Your task to perform on an android device: uninstall "Microsoft Excel" Image 0: 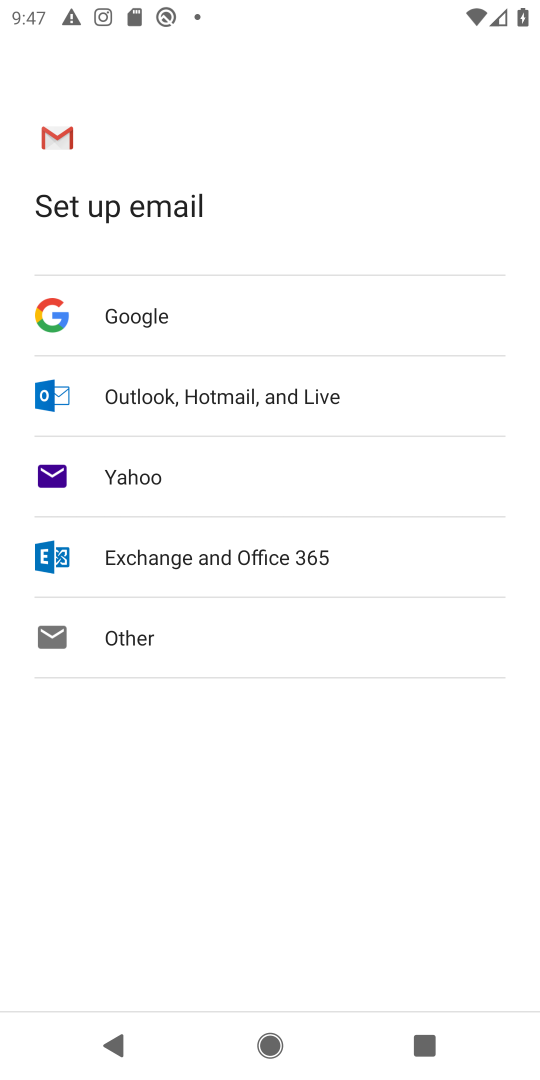
Step 0: press home button
Your task to perform on an android device: uninstall "Microsoft Excel" Image 1: 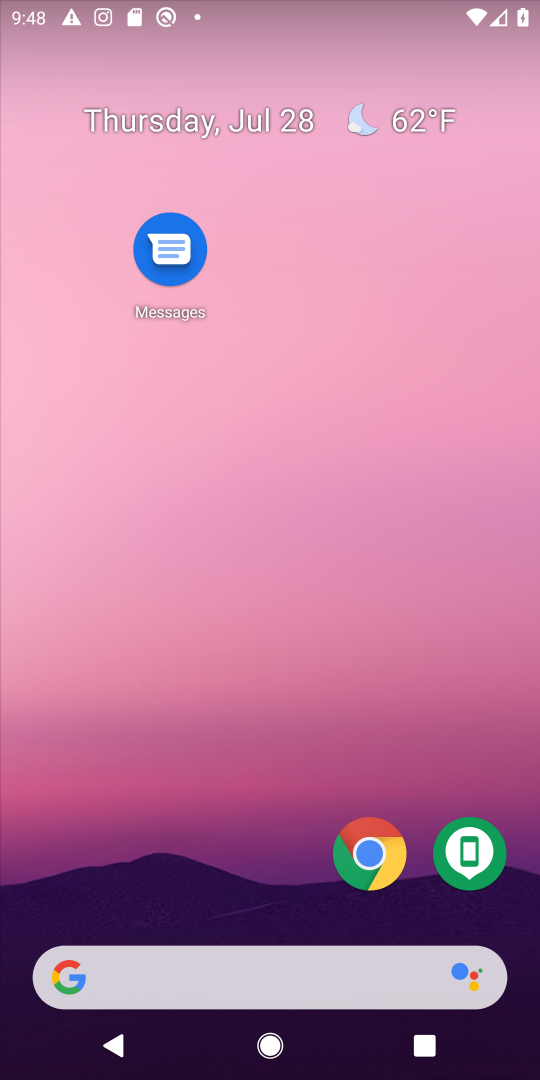
Step 1: press home button
Your task to perform on an android device: uninstall "Microsoft Excel" Image 2: 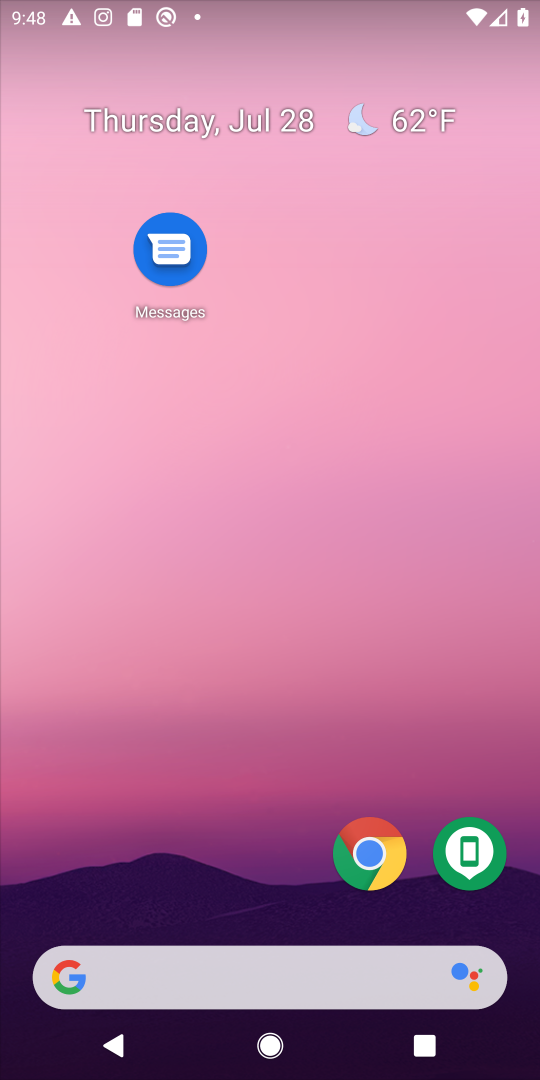
Step 2: click (226, 905)
Your task to perform on an android device: uninstall "Microsoft Excel" Image 3: 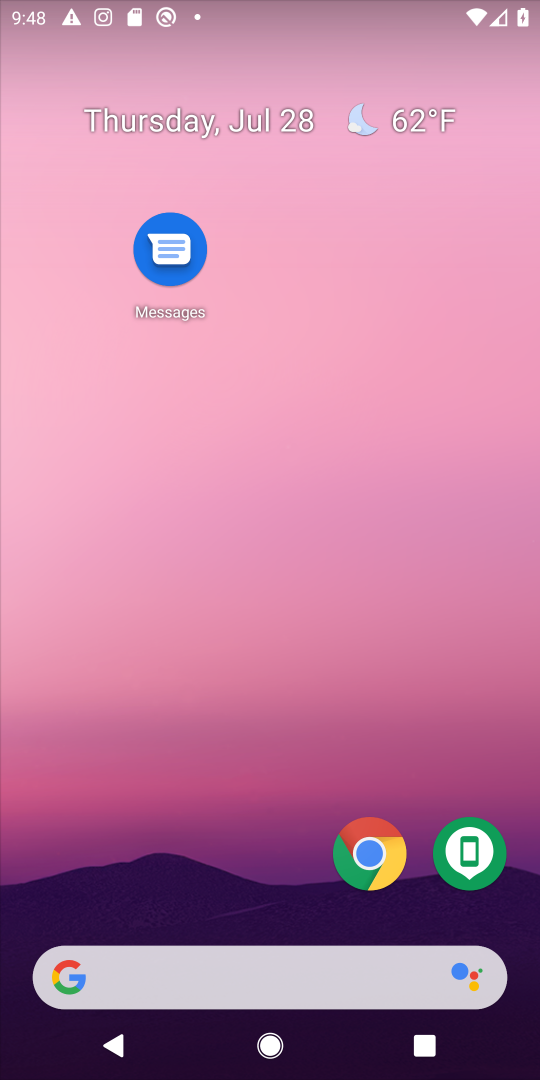
Step 3: drag from (222, 758) to (203, 12)
Your task to perform on an android device: uninstall "Microsoft Excel" Image 4: 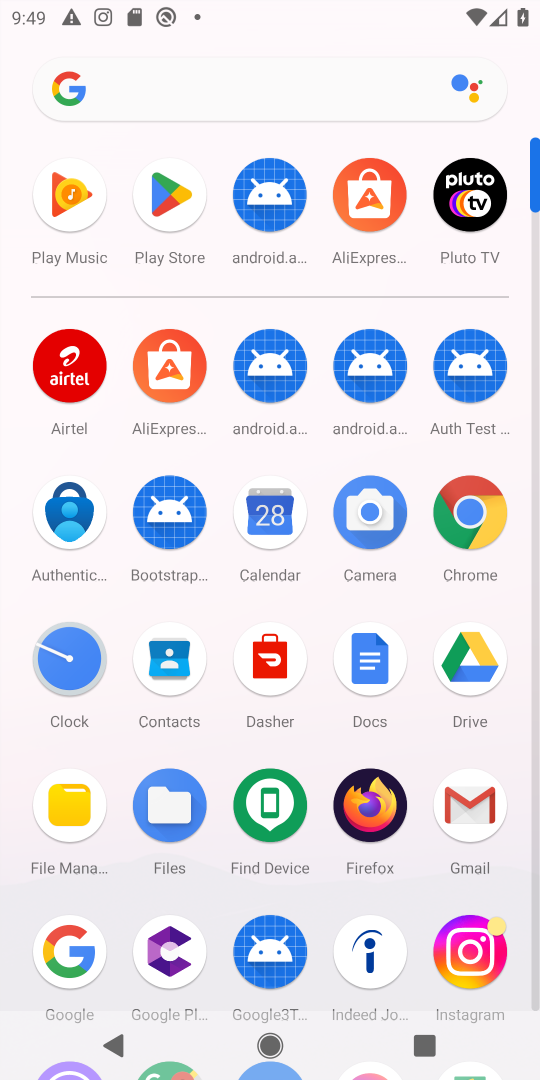
Step 4: click (172, 226)
Your task to perform on an android device: uninstall "Microsoft Excel" Image 5: 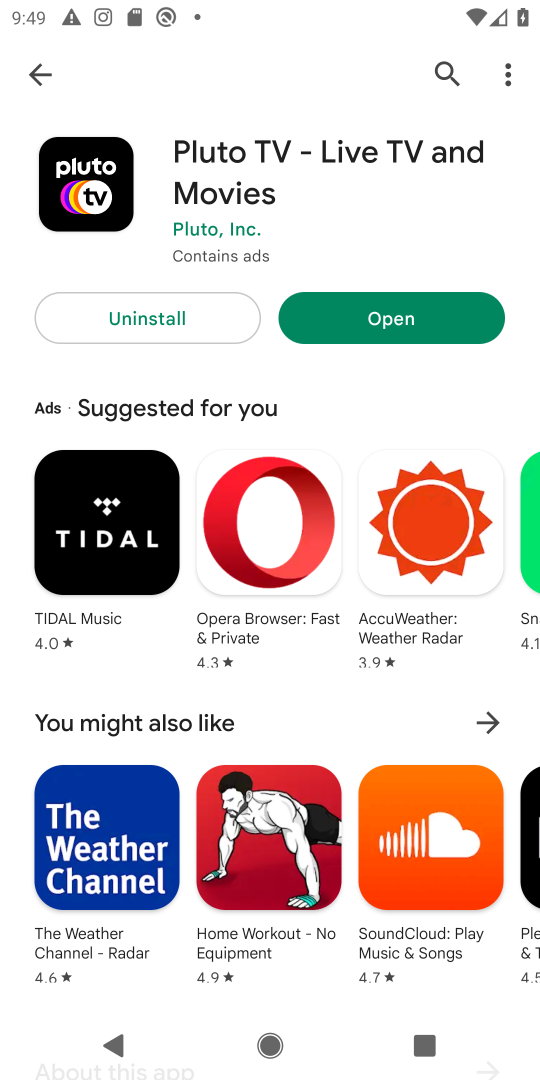
Step 5: click (48, 76)
Your task to perform on an android device: uninstall "Microsoft Excel" Image 6: 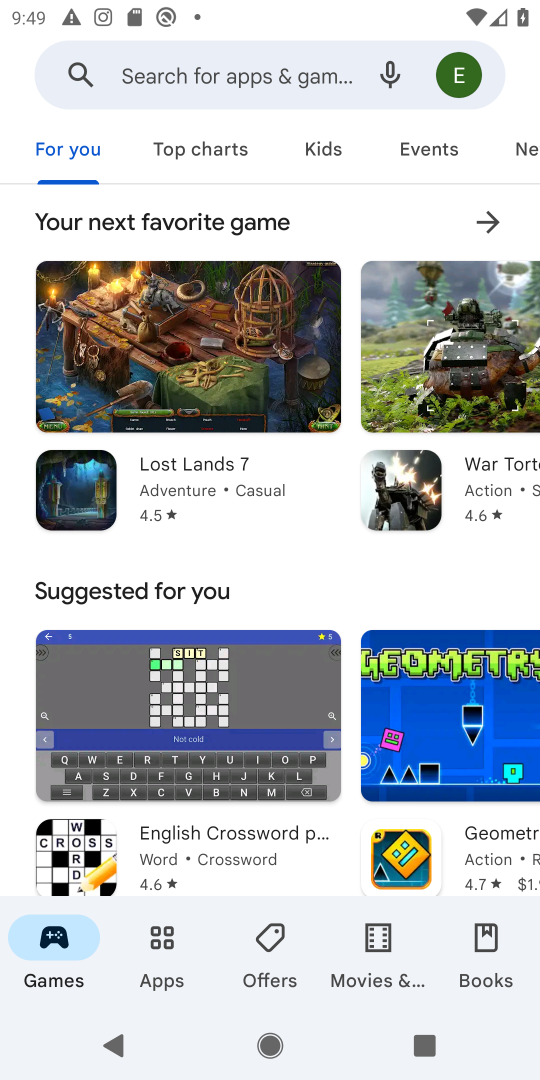
Step 6: click (165, 74)
Your task to perform on an android device: uninstall "Microsoft Excel" Image 7: 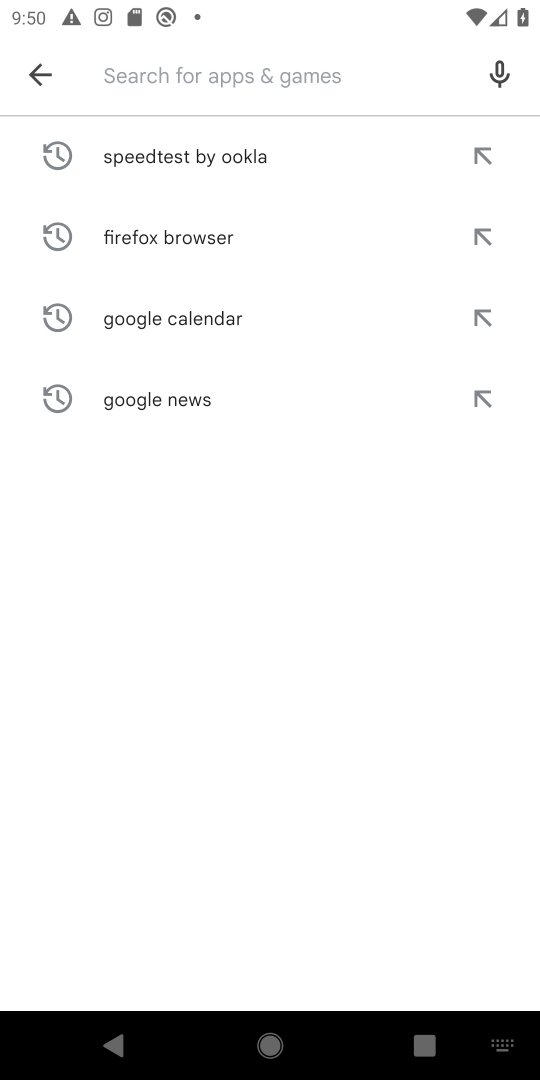
Step 7: type "Microsoft Excel"
Your task to perform on an android device: uninstall "Microsoft Excel" Image 8: 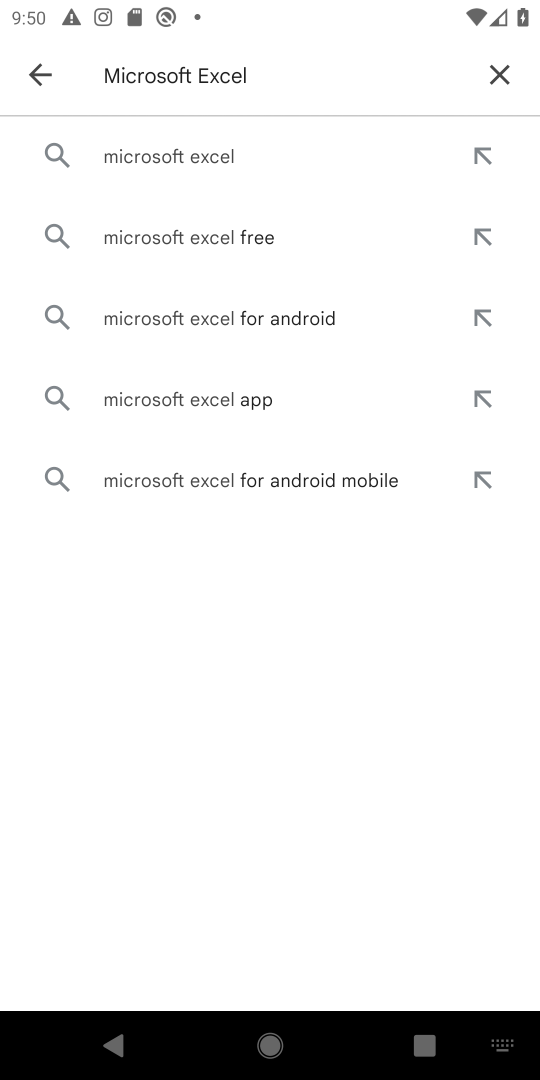
Step 8: click (140, 151)
Your task to perform on an android device: uninstall "Microsoft Excel" Image 9: 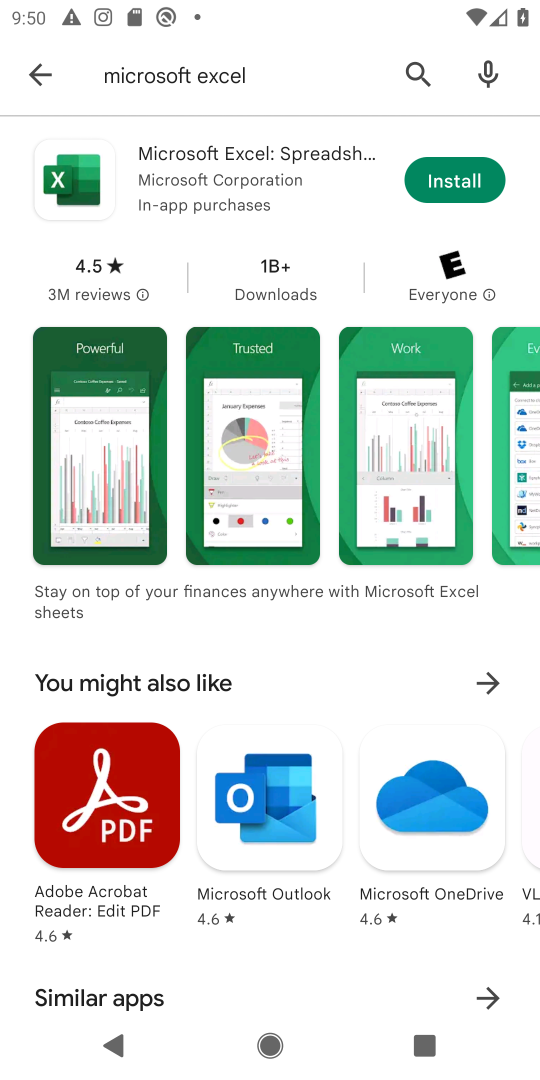
Step 9: click (418, 170)
Your task to perform on an android device: uninstall "Microsoft Excel" Image 10: 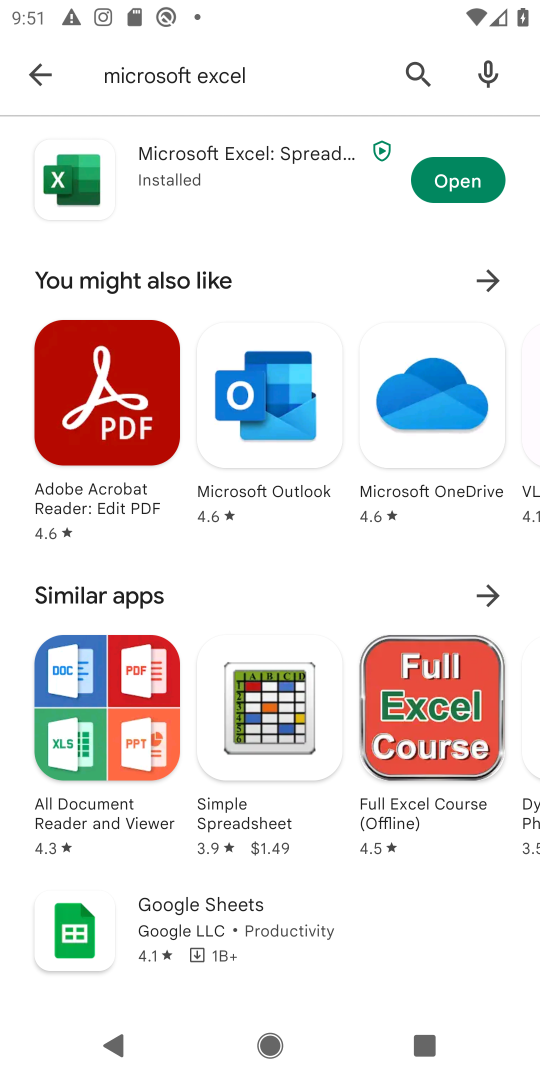
Step 10: click (213, 146)
Your task to perform on an android device: uninstall "Microsoft Excel" Image 11: 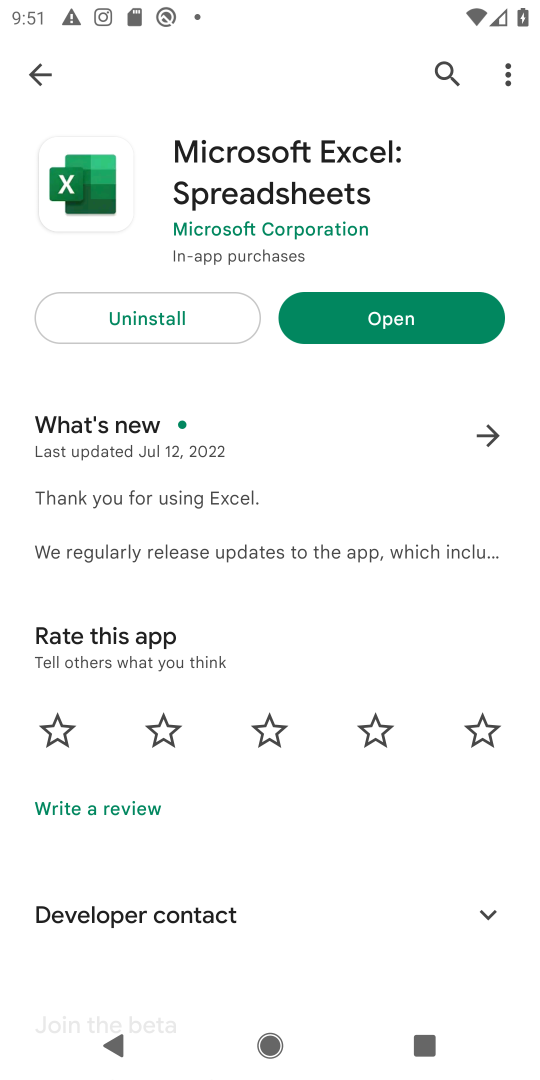
Step 11: click (130, 325)
Your task to perform on an android device: uninstall "Microsoft Excel" Image 12: 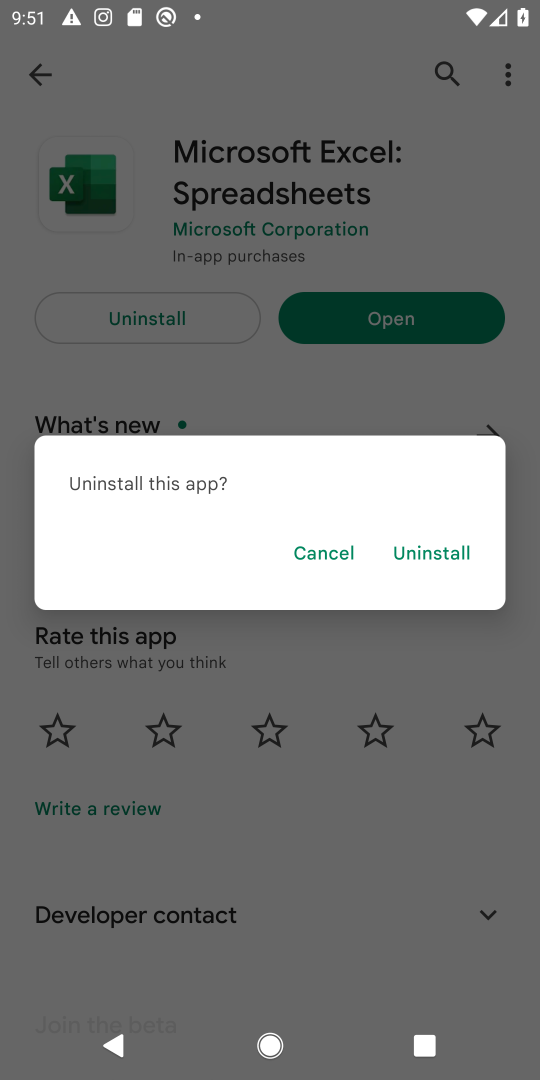
Step 12: click (416, 558)
Your task to perform on an android device: uninstall "Microsoft Excel" Image 13: 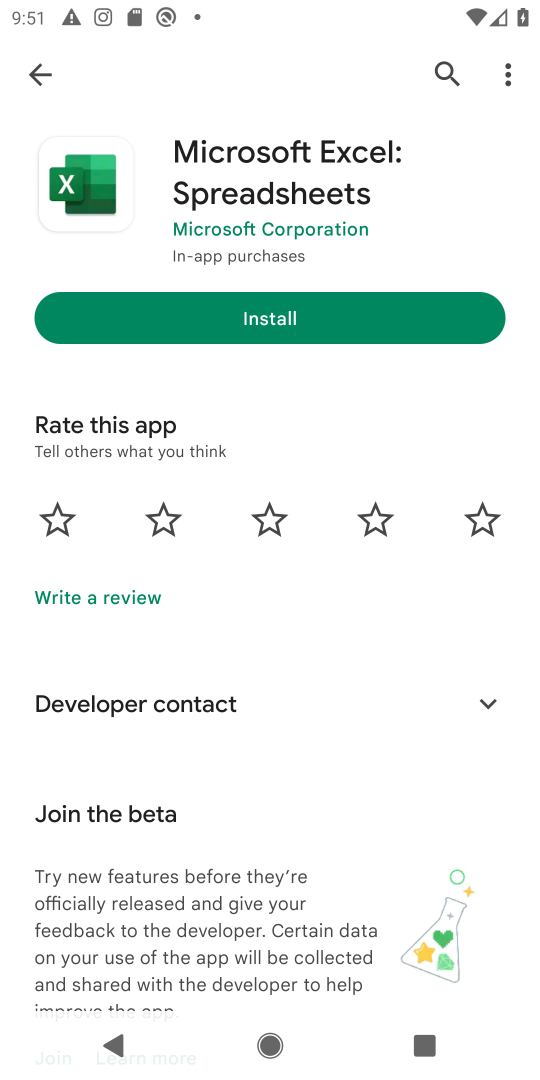
Step 13: task complete